Your task to perform on an android device: Search for "logitech g pro" on bestbuy.com, select the first entry, add it to the cart, then select checkout. Image 0: 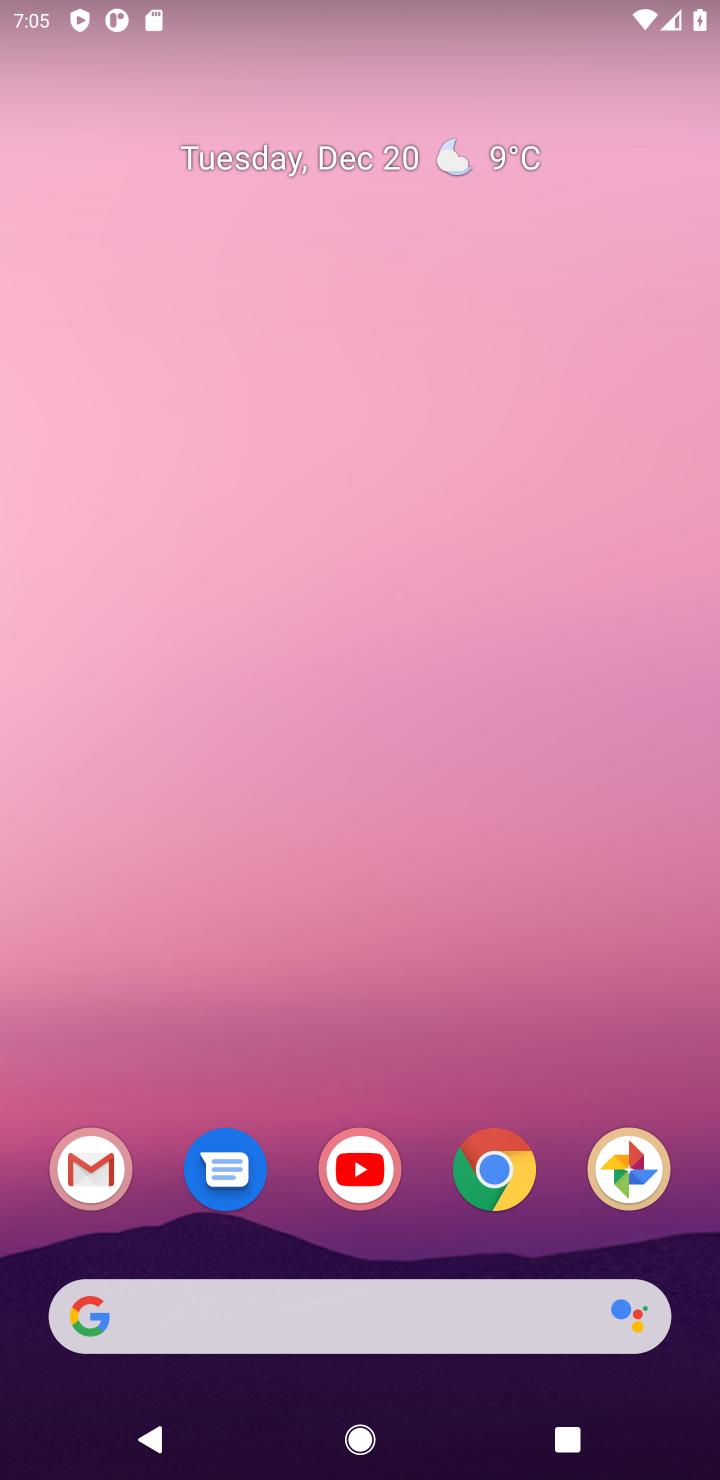
Step 0: click (503, 1146)
Your task to perform on an android device: Search for "logitech g pro" on bestbuy.com, select the first entry, add it to the cart, then select checkout. Image 1: 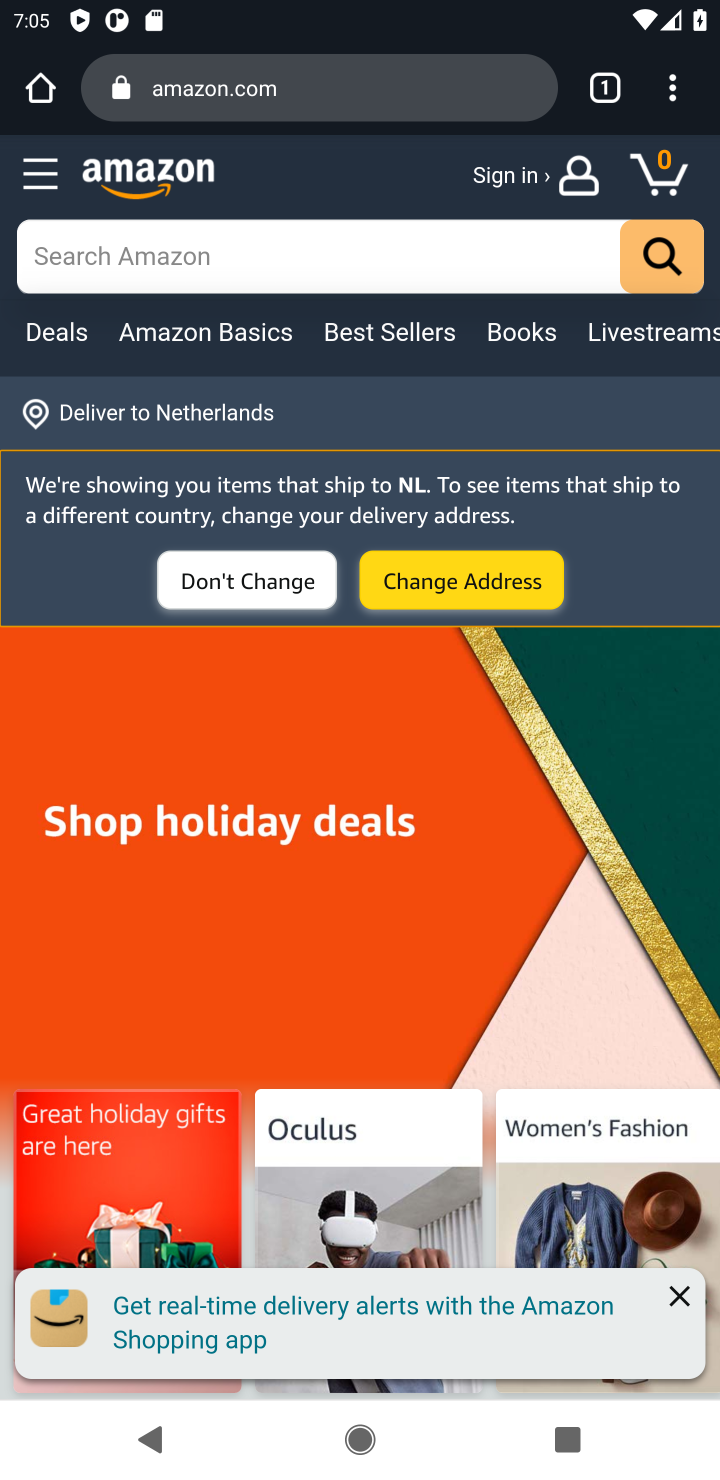
Step 1: click (329, 99)
Your task to perform on an android device: Search for "logitech g pro" on bestbuy.com, select the first entry, add it to the cart, then select checkout. Image 2: 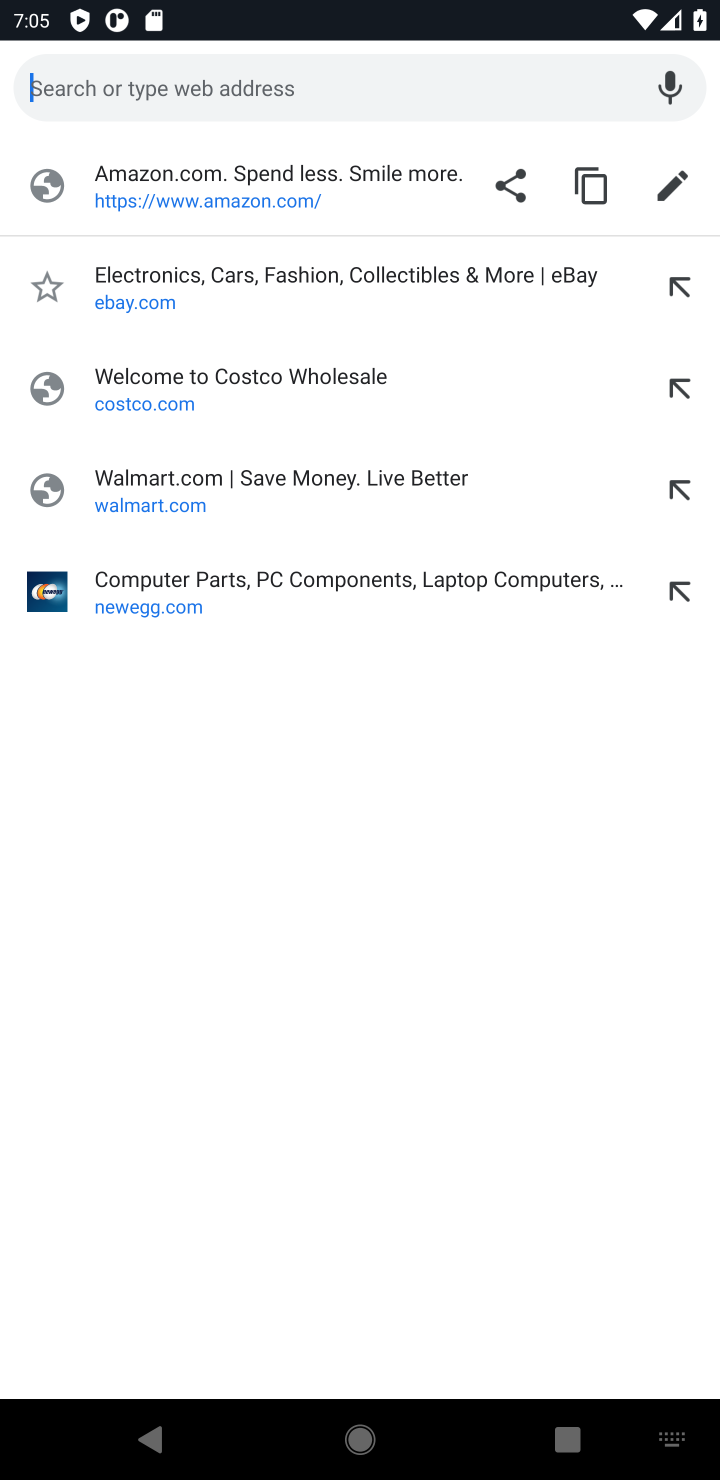
Step 2: type "bestbuy"
Your task to perform on an android device: Search for "logitech g pro" on bestbuy.com, select the first entry, add it to the cart, then select checkout. Image 3: 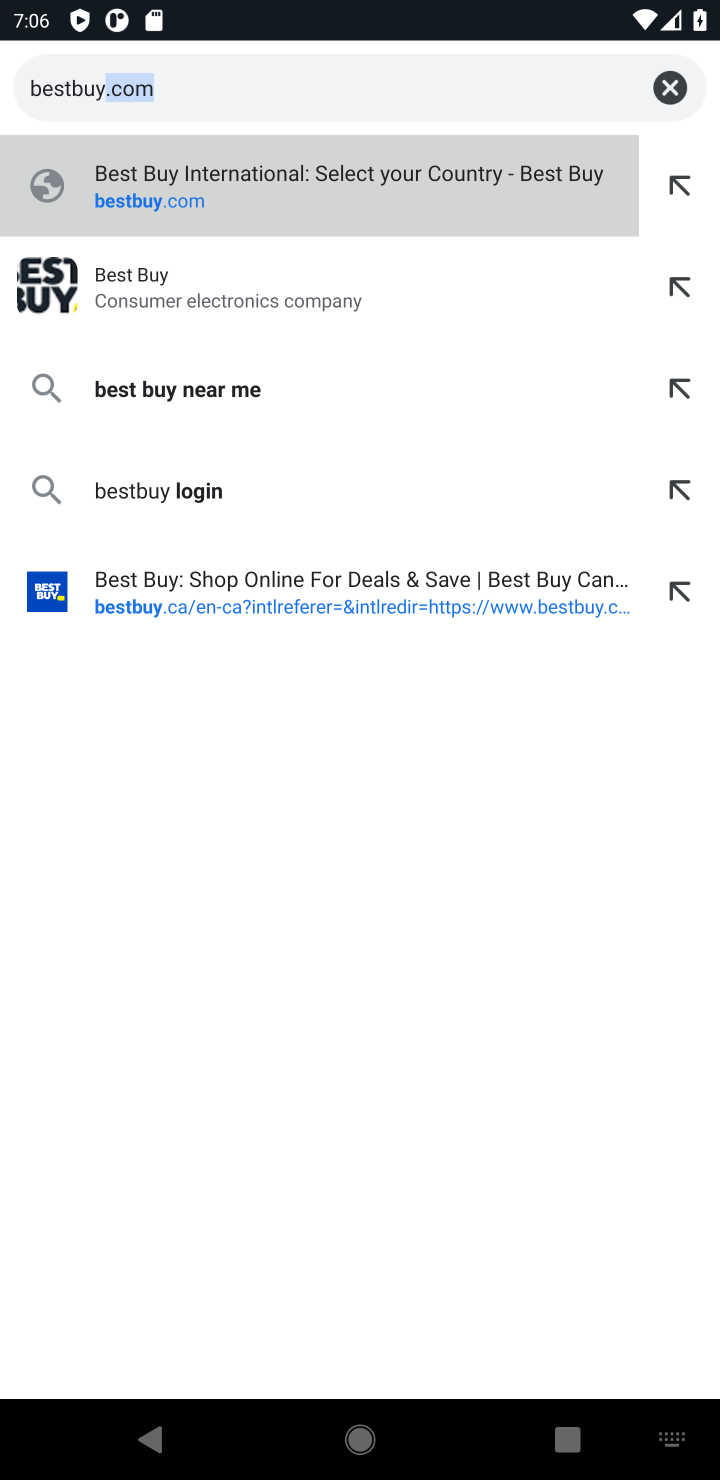
Step 3: click (213, 196)
Your task to perform on an android device: Search for "logitech g pro" on bestbuy.com, select the first entry, add it to the cart, then select checkout. Image 4: 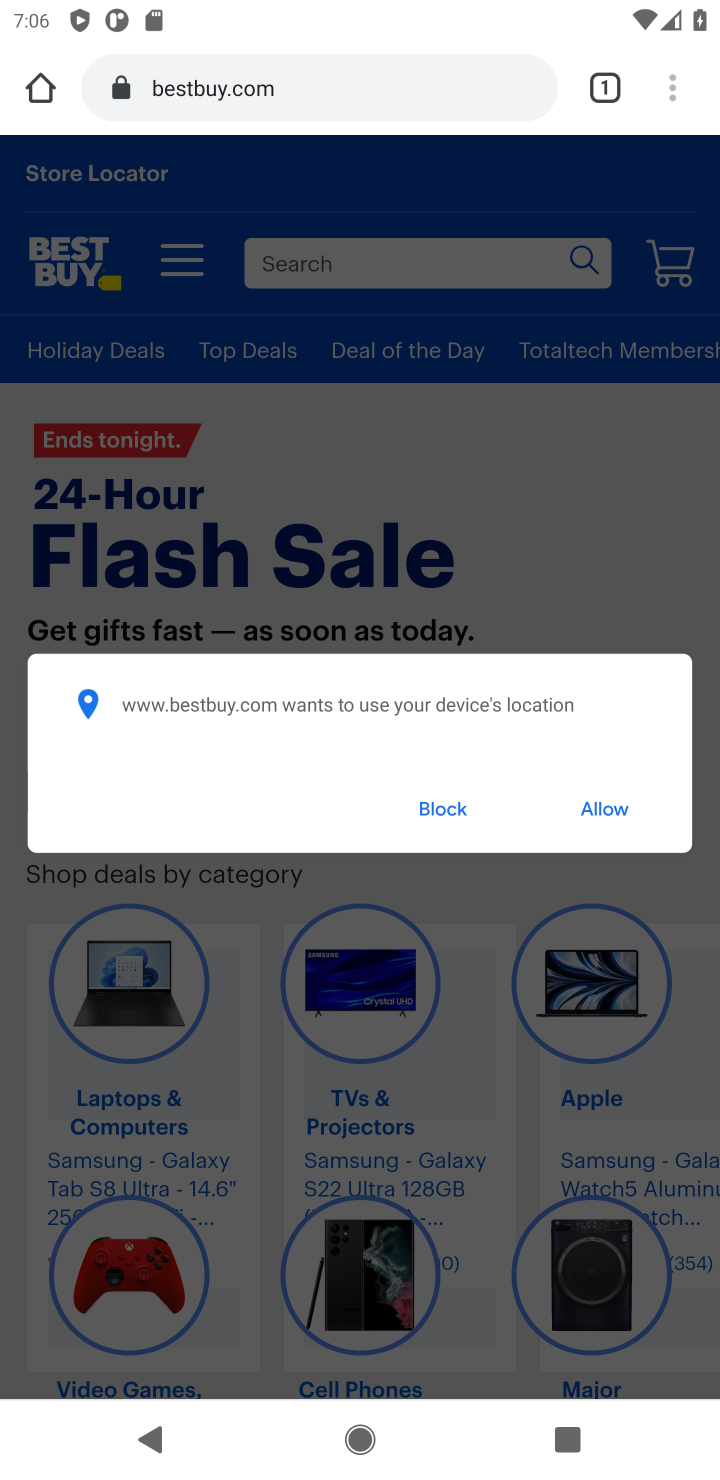
Step 4: click (587, 827)
Your task to perform on an android device: Search for "logitech g pro" on bestbuy.com, select the first entry, add it to the cart, then select checkout. Image 5: 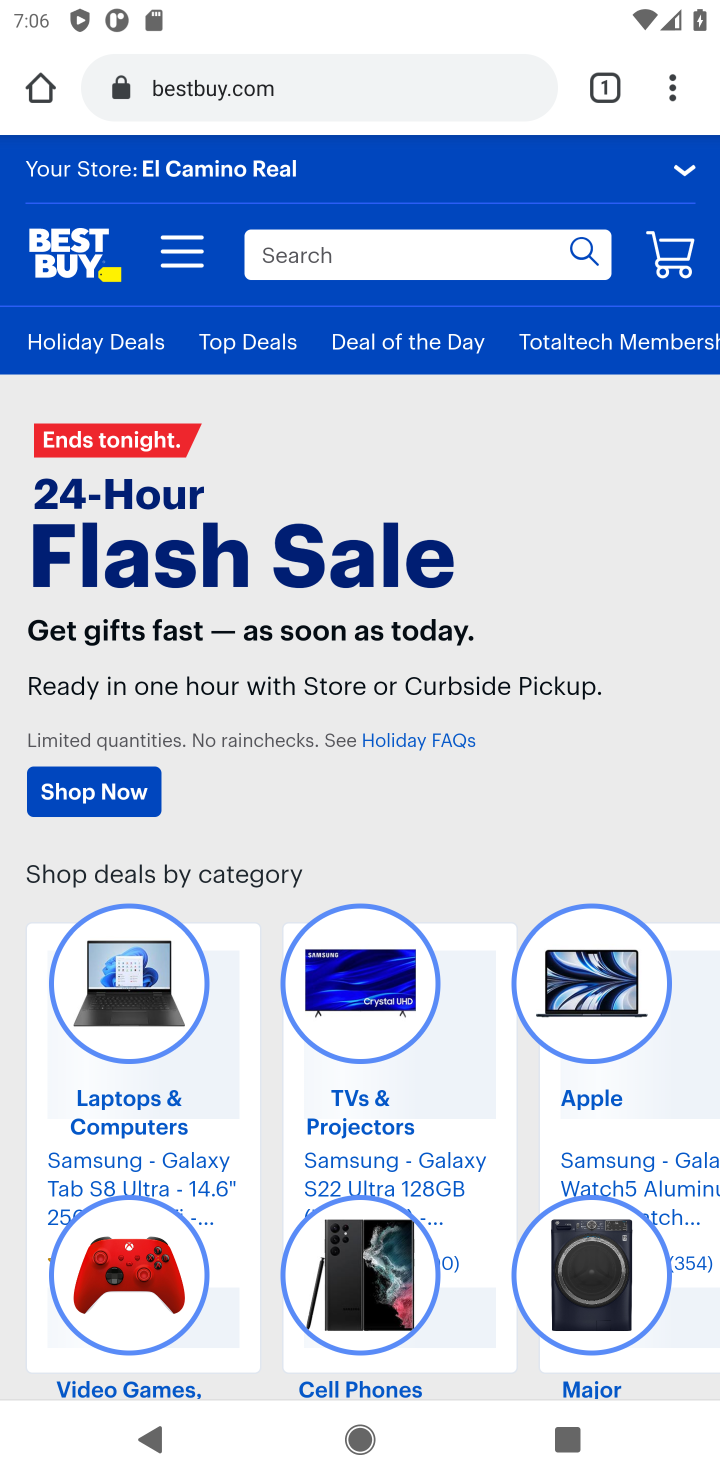
Step 5: click (429, 257)
Your task to perform on an android device: Search for "logitech g pro" on bestbuy.com, select the first entry, add it to the cart, then select checkout. Image 6: 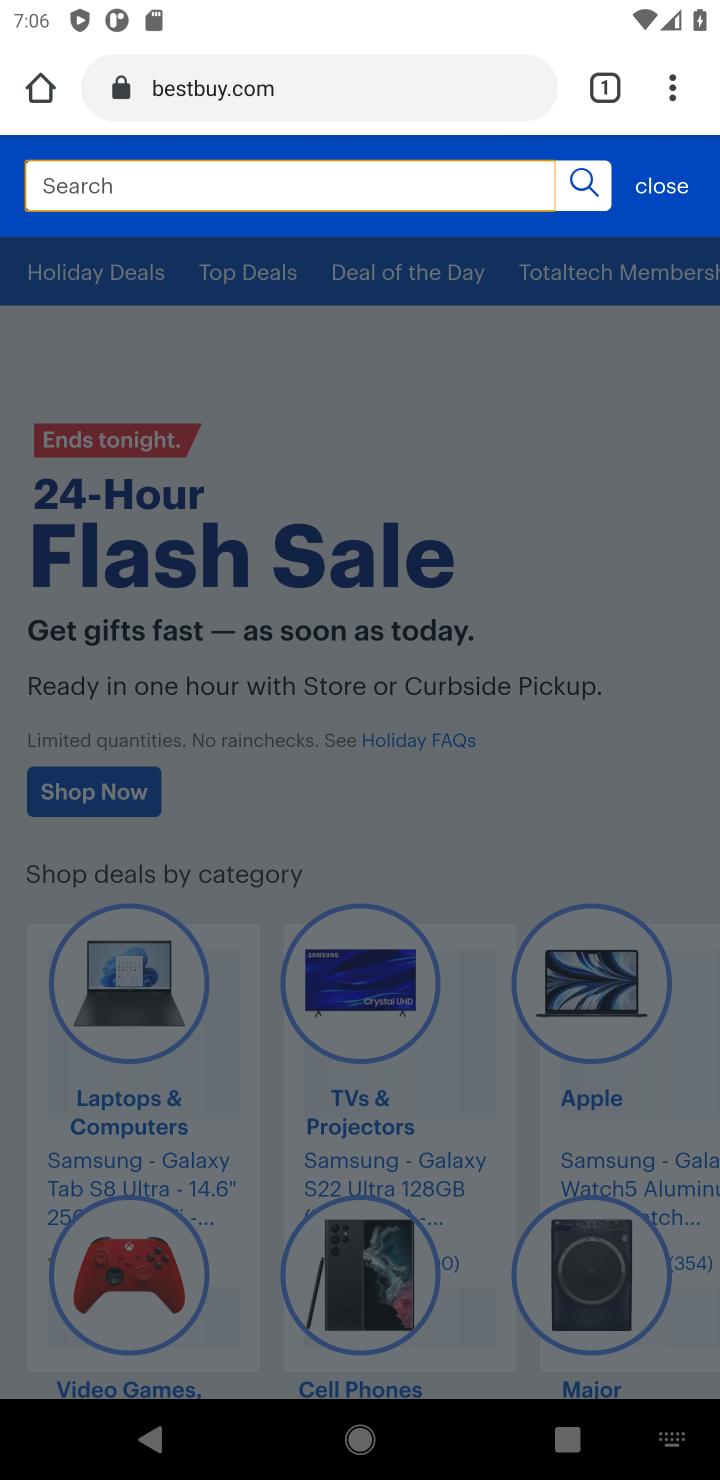
Step 6: type "logitech gpro"
Your task to perform on an android device: Search for "logitech g pro" on bestbuy.com, select the first entry, add it to the cart, then select checkout. Image 7: 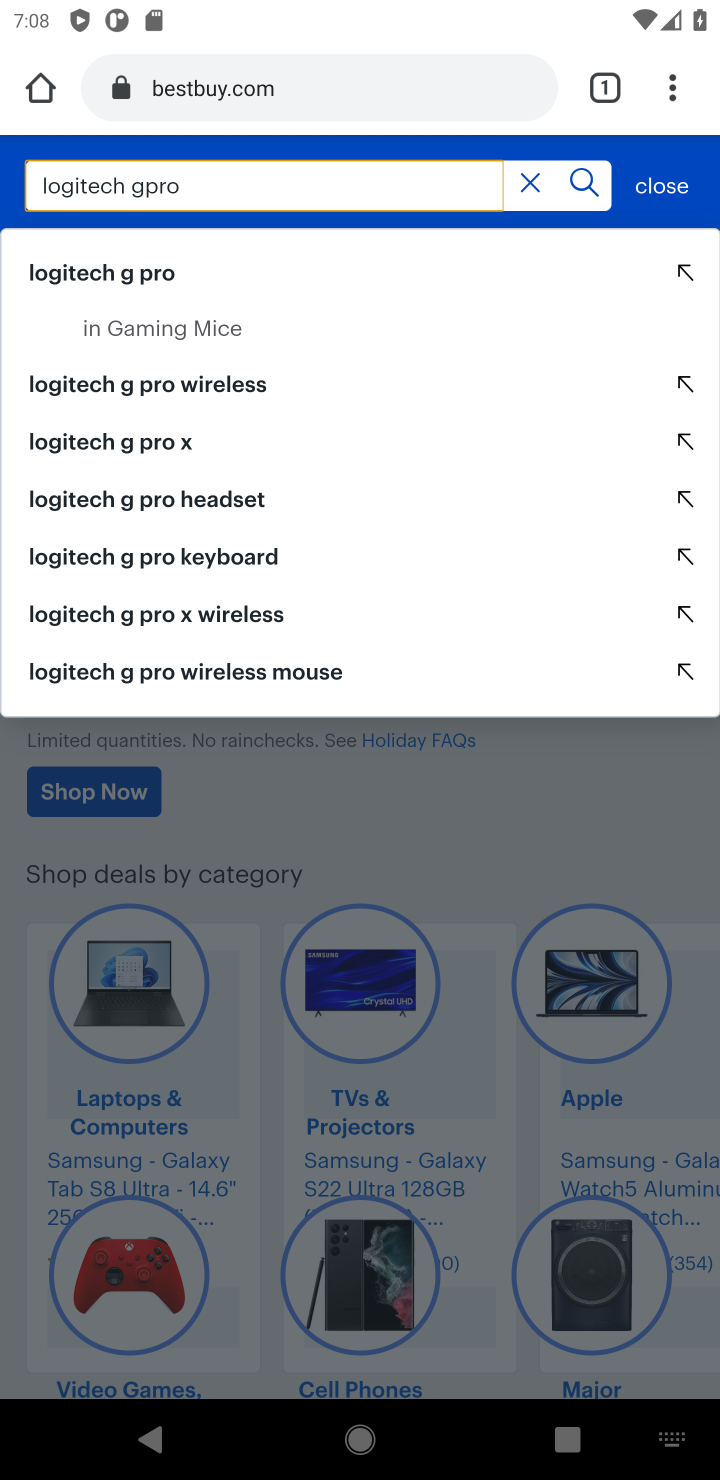
Step 7: click (48, 268)
Your task to perform on an android device: Search for "logitech g pro" on bestbuy.com, select the first entry, add it to the cart, then select checkout. Image 8: 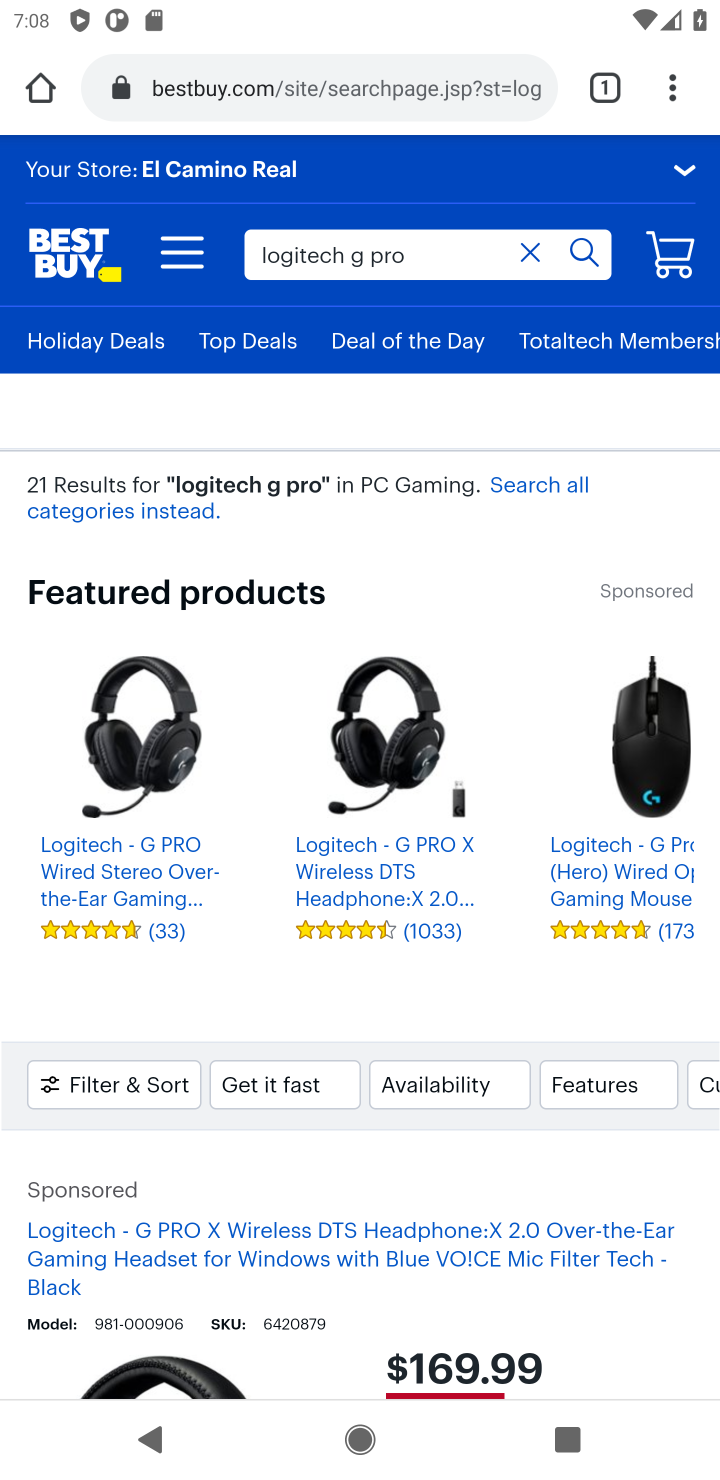
Step 8: drag from (370, 1353) to (301, 620)
Your task to perform on an android device: Search for "logitech g pro" on bestbuy.com, select the first entry, add it to the cart, then select checkout. Image 9: 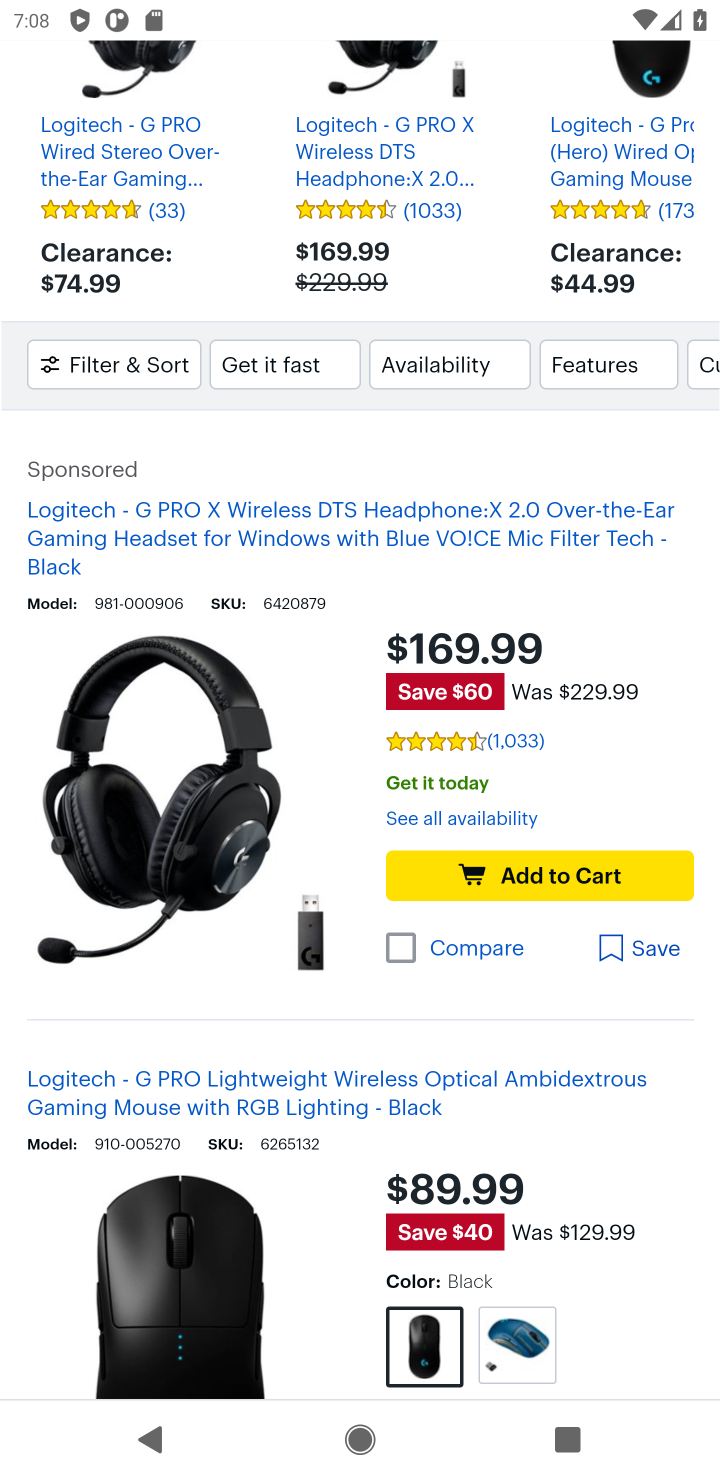
Step 9: click (519, 894)
Your task to perform on an android device: Search for "logitech g pro" on bestbuy.com, select the first entry, add it to the cart, then select checkout. Image 10: 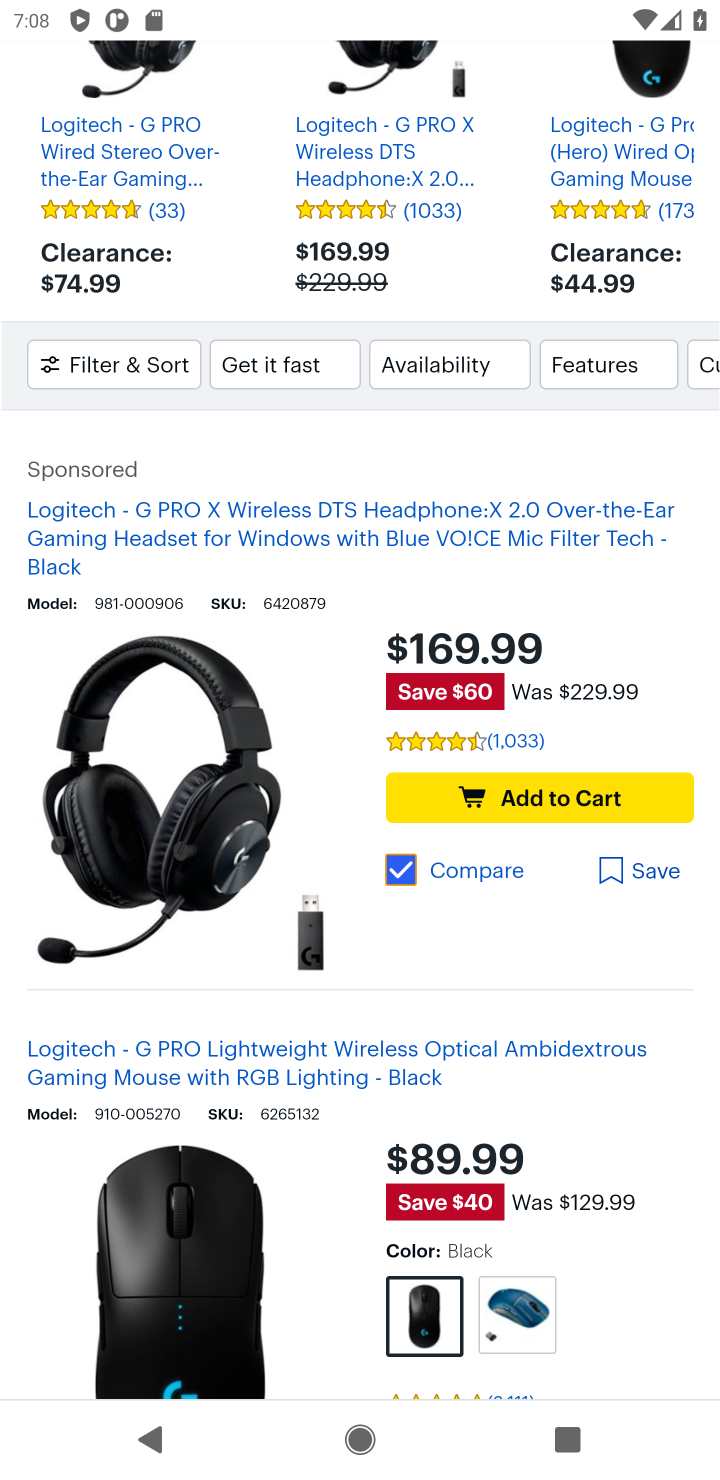
Step 10: task complete